Your task to perform on an android device: turn on translation in the chrome app Image 0: 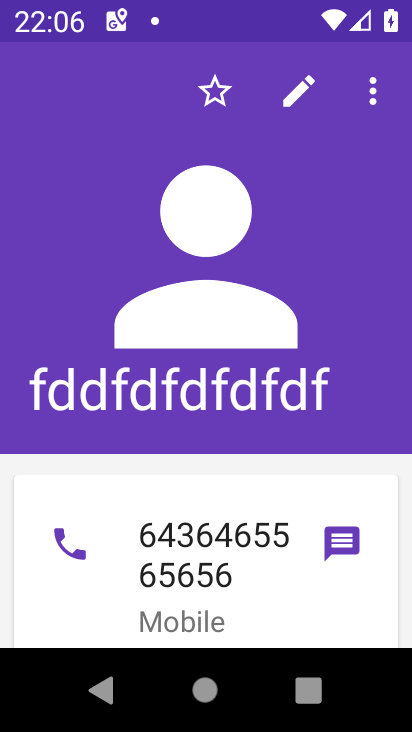
Step 0: press home button
Your task to perform on an android device: turn on translation in the chrome app Image 1: 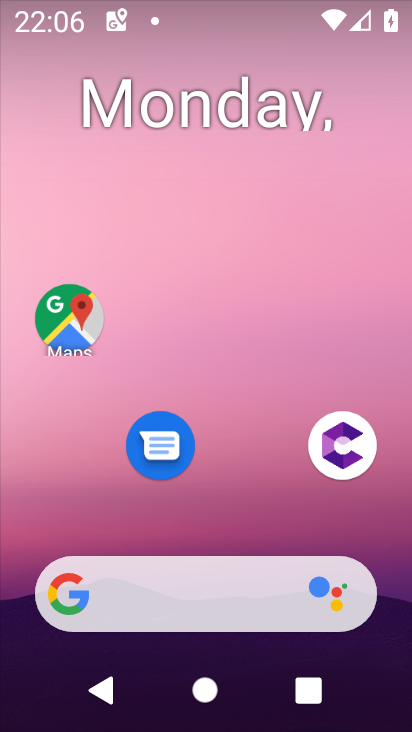
Step 1: drag from (222, 528) to (238, 39)
Your task to perform on an android device: turn on translation in the chrome app Image 2: 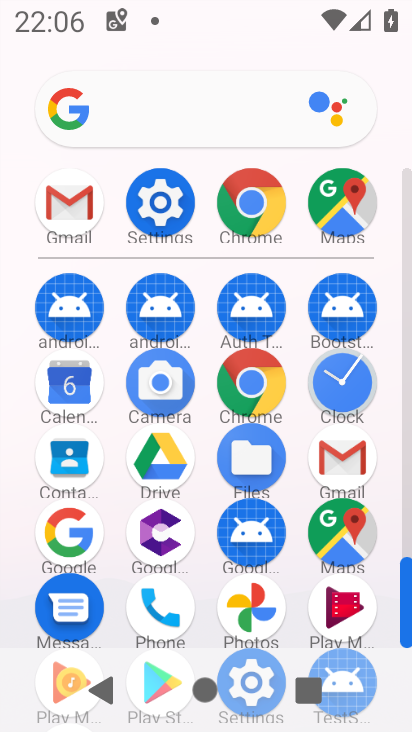
Step 2: click (252, 194)
Your task to perform on an android device: turn on translation in the chrome app Image 3: 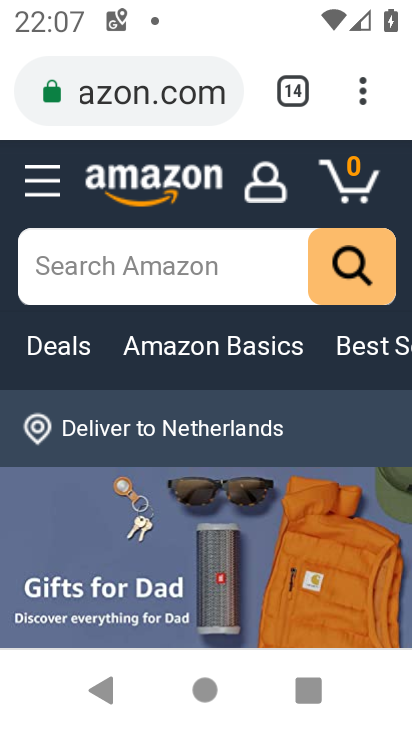
Step 3: drag from (361, 97) to (191, 492)
Your task to perform on an android device: turn on translation in the chrome app Image 4: 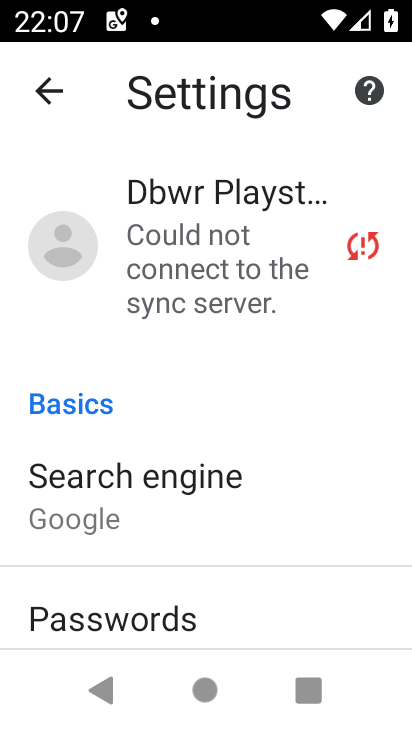
Step 4: drag from (324, 566) to (294, 82)
Your task to perform on an android device: turn on translation in the chrome app Image 5: 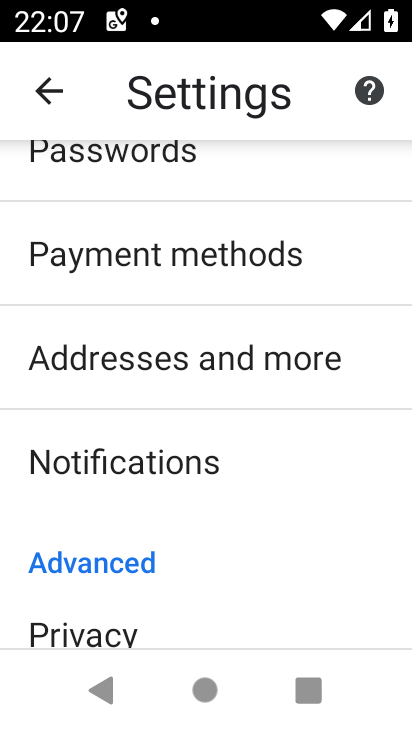
Step 5: drag from (238, 576) to (275, 160)
Your task to perform on an android device: turn on translation in the chrome app Image 6: 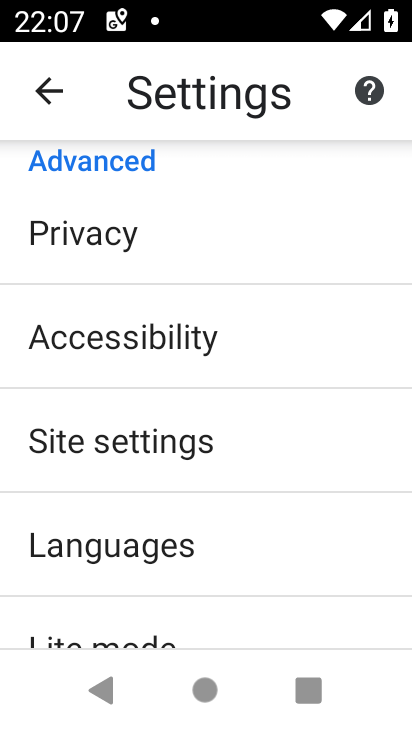
Step 6: click (132, 554)
Your task to perform on an android device: turn on translation in the chrome app Image 7: 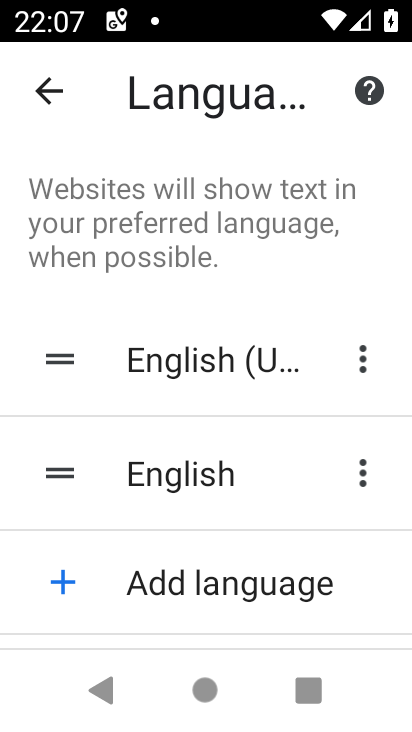
Step 7: drag from (323, 560) to (223, 57)
Your task to perform on an android device: turn on translation in the chrome app Image 8: 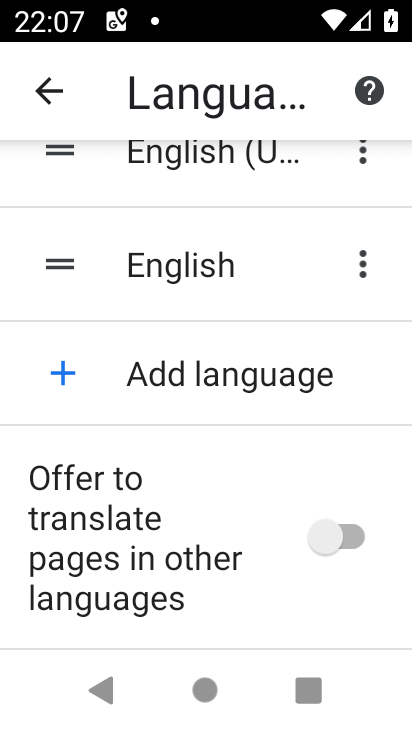
Step 8: click (314, 538)
Your task to perform on an android device: turn on translation in the chrome app Image 9: 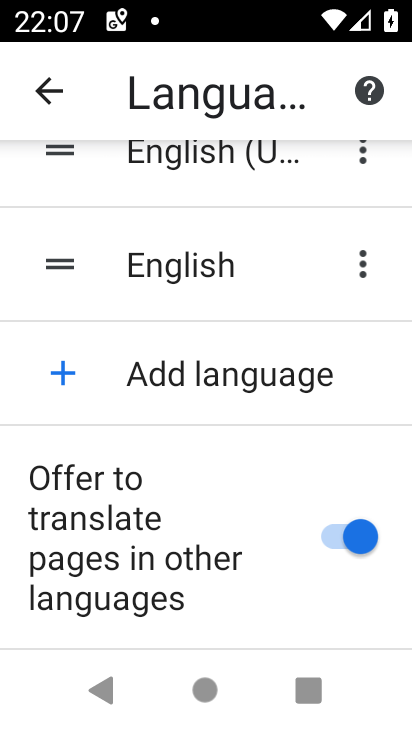
Step 9: task complete